Your task to perform on an android device: Open ESPN.com Image 0: 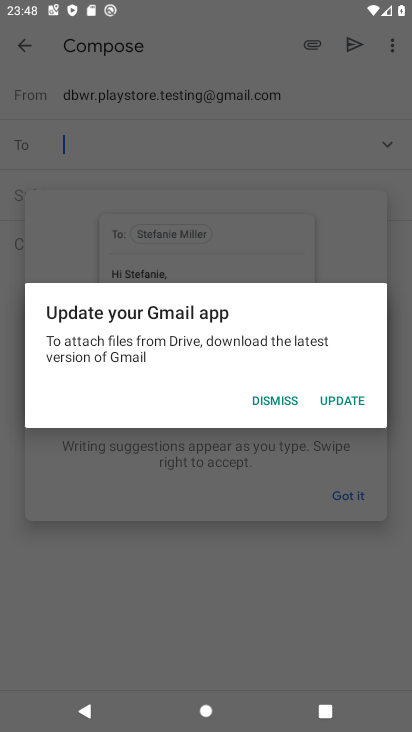
Step 0: press home button
Your task to perform on an android device: Open ESPN.com Image 1: 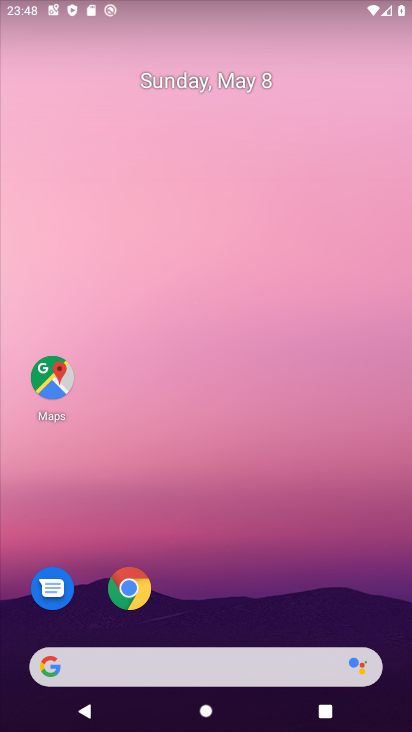
Step 1: click (127, 585)
Your task to perform on an android device: Open ESPN.com Image 2: 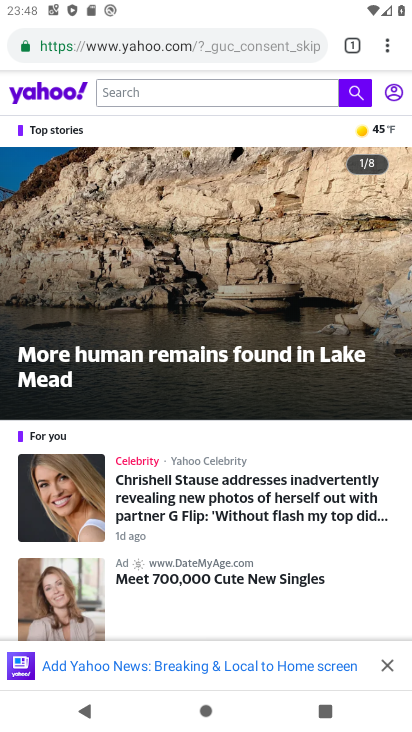
Step 2: click (386, 44)
Your task to perform on an android device: Open ESPN.com Image 3: 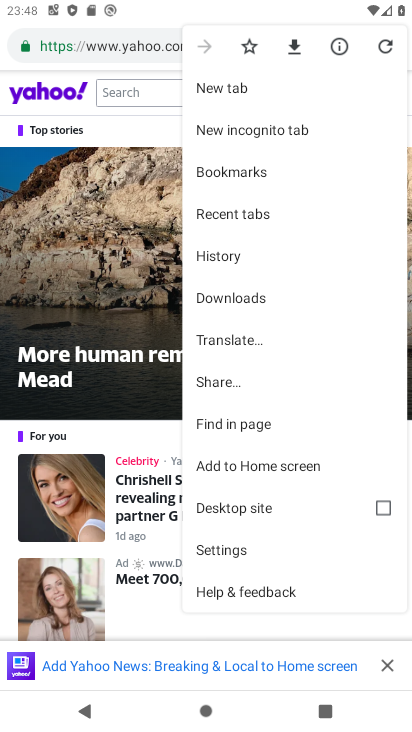
Step 3: click (223, 85)
Your task to perform on an android device: Open ESPN.com Image 4: 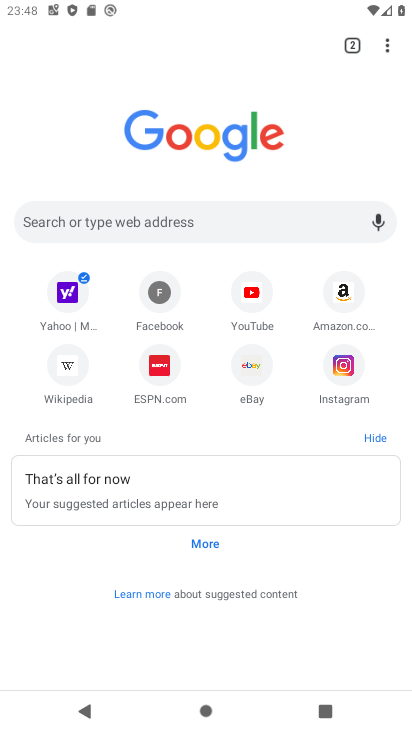
Step 4: click (156, 365)
Your task to perform on an android device: Open ESPN.com Image 5: 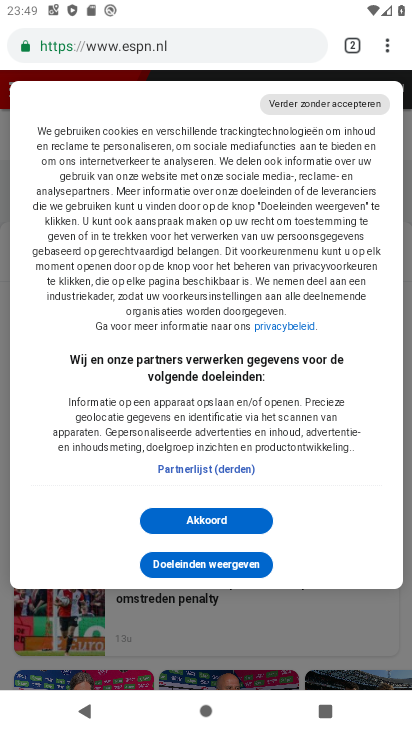
Step 5: task complete